Your task to perform on an android device: move an email to a new category in the gmail app Image 0: 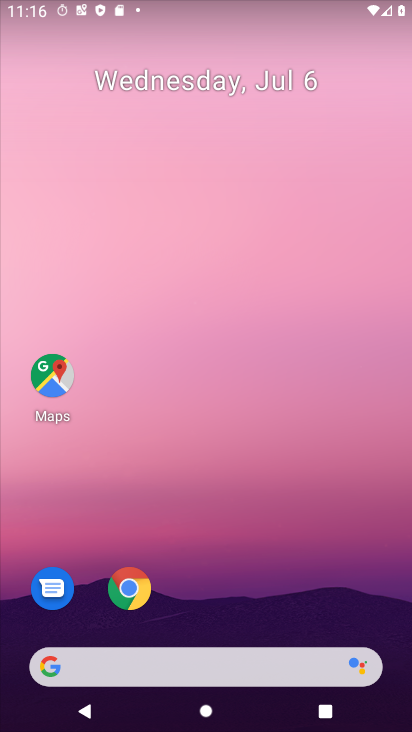
Step 0: click (124, 584)
Your task to perform on an android device: move an email to a new category in the gmail app Image 1: 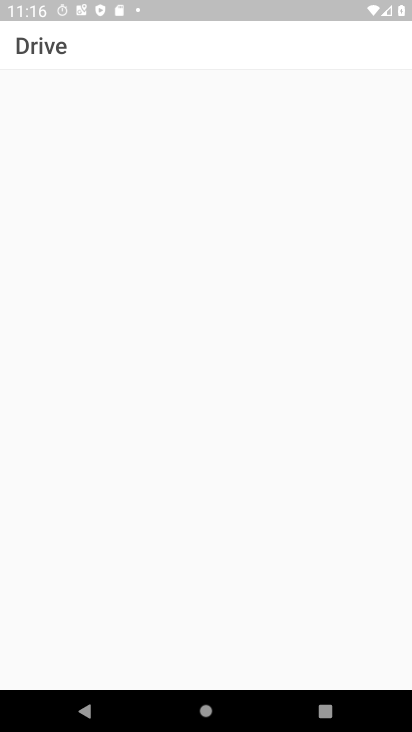
Step 1: press home button
Your task to perform on an android device: move an email to a new category in the gmail app Image 2: 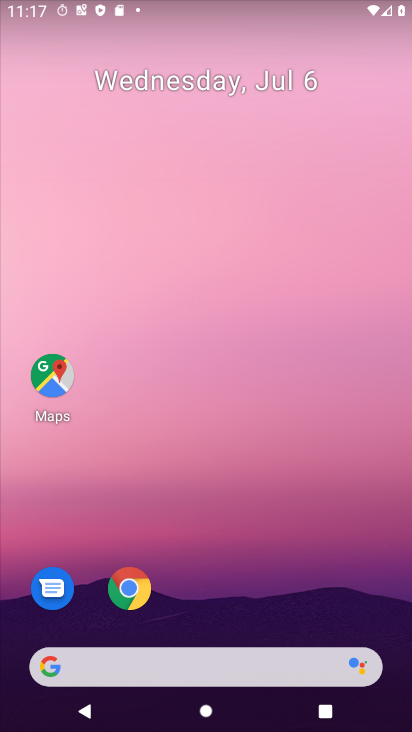
Step 2: drag from (252, 729) to (251, 605)
Your task to perform on an android device: move an email to a new category in the gmail app Image 3: 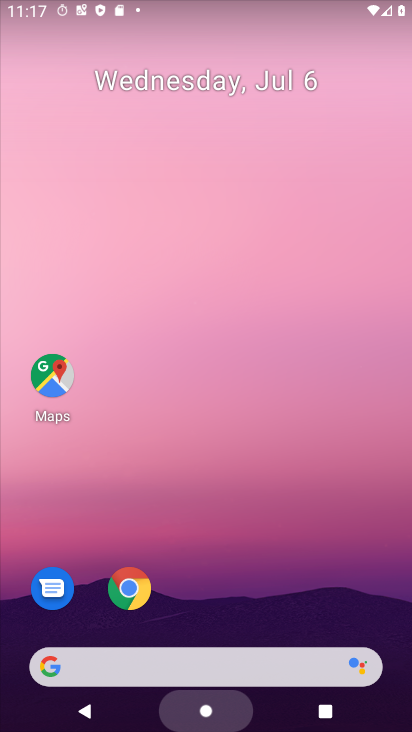
Step 3: drag from (249, 209) to (242, 89)
Your task to perform on an android device: move an email to a new category in the gmail app Image 4: 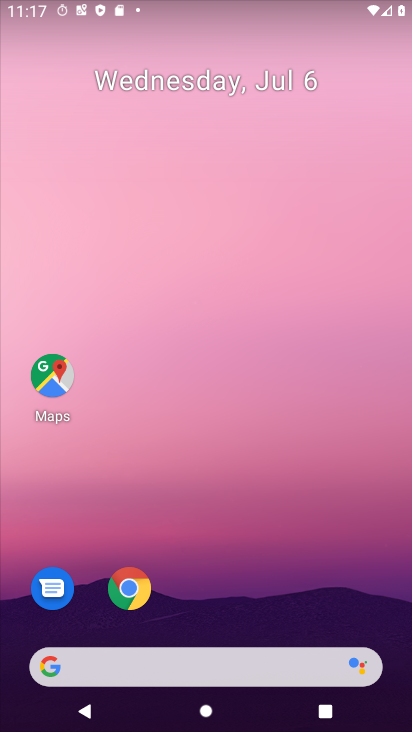
Step 4: drag from (232, 708) to (227, 107)
Your task to perform on an android device: move an email to a new category in the gmail app Image 5: 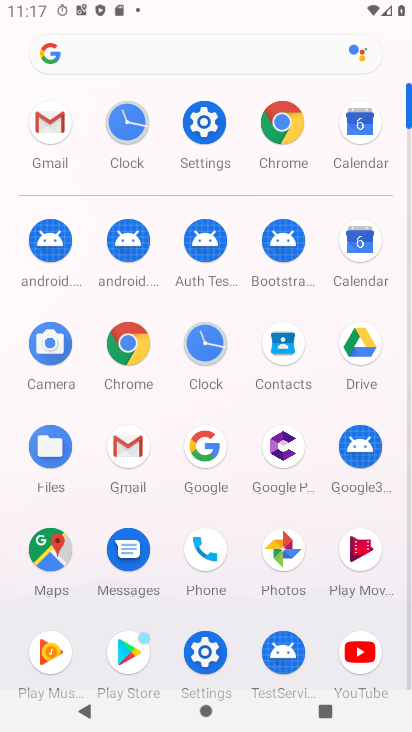
Step 5: click (135, 451)
Your task to perform on an android device: move an email to a new category in the gmail app Image 6: 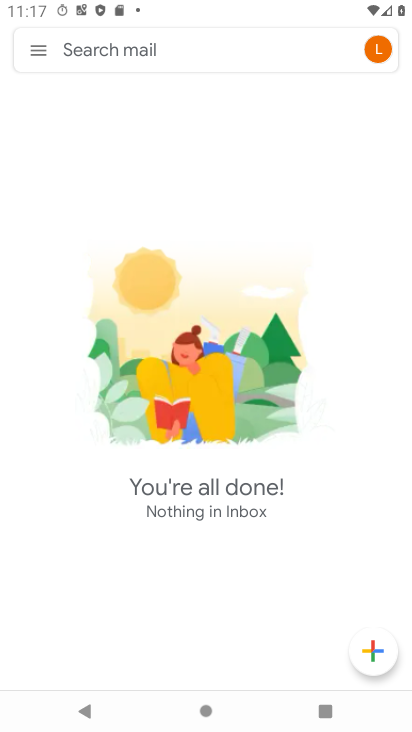
Step 6: task complete